Your task to perform on an android device: Open the calendar app, open the side menu, and click the "Day" option Image 0: 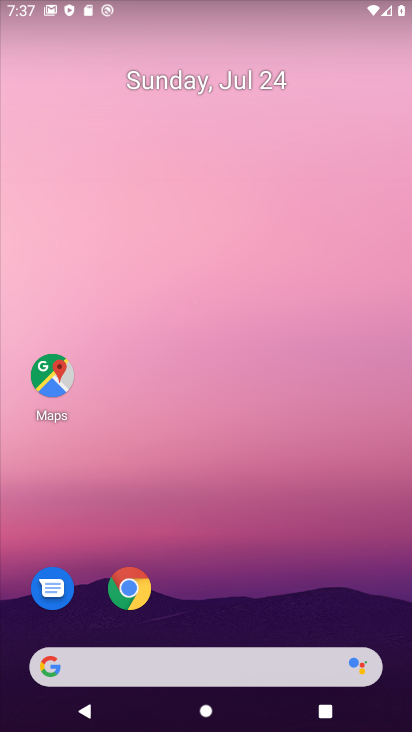
Step 0: drag from (272, 610) to (399, 15)
Your task to perform on an android device: Open the calendar app, open the side menu, and click the "Day" option Image 1: 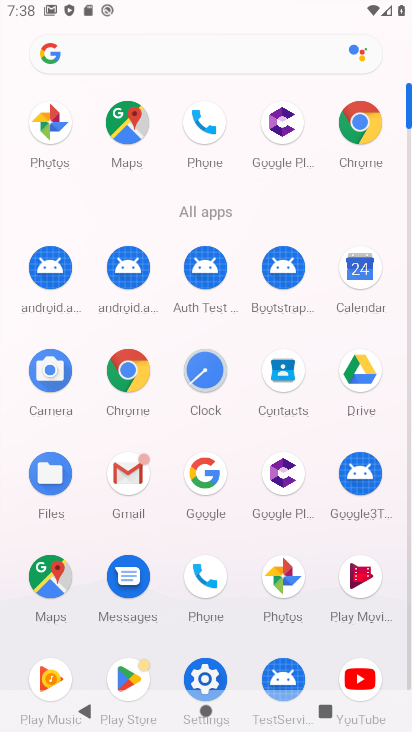
Step 1: click (359, 272)
Your task to perform on an android device: Open the calendar app, open the side menu, and click the "Day" option Image 2: 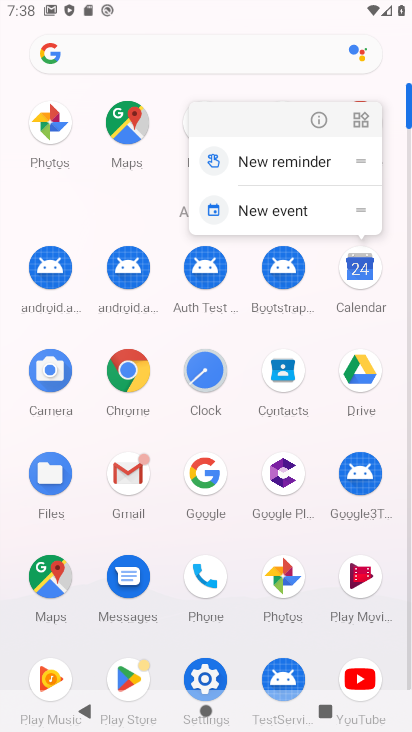
Step 2: click (359, 272)
Your task to perform on an android device: Open the calendar app, open the side menu, and click the "Day" option Image 3: 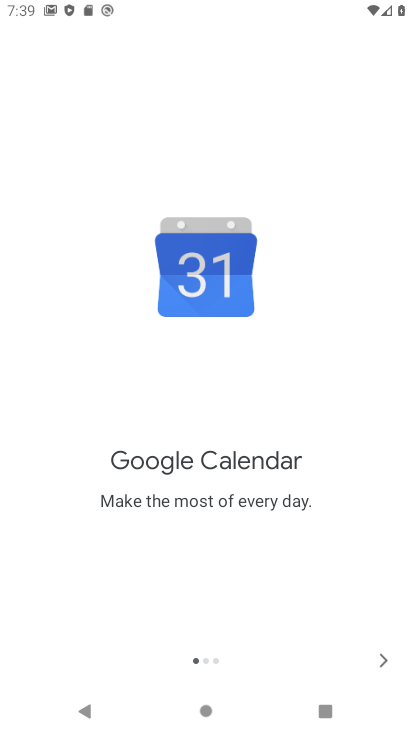
Step 3: click (385, 669)
Your task to perform on an android device: Open the calendar app, open the side menu, and click the "Day" option Image 4: 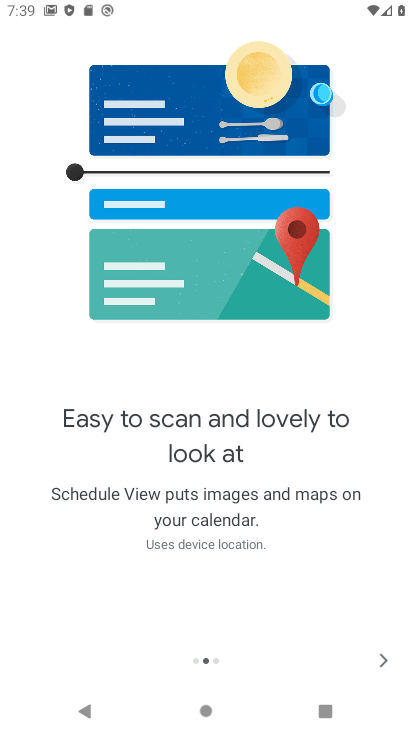
Step 4: click (387, 667)
Your task to perform on an android device: Open the calendar app, open the side menu, and click the "Day" option Image 5: 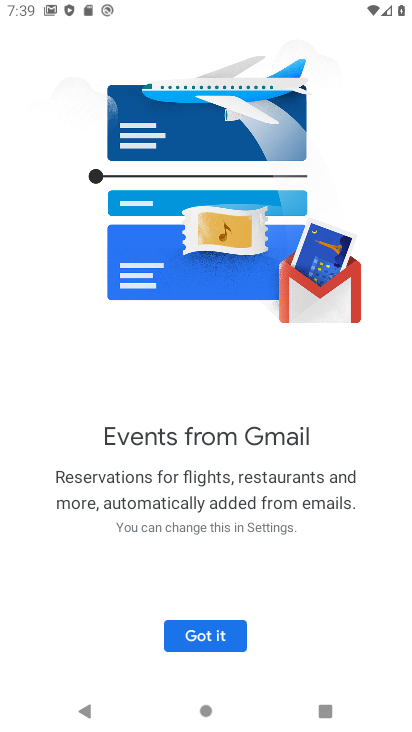
Step 5: click (209, 639)
Your task to perform on an android device: Open the calendar app, open the side menu, and click the "Day" option Image 6: 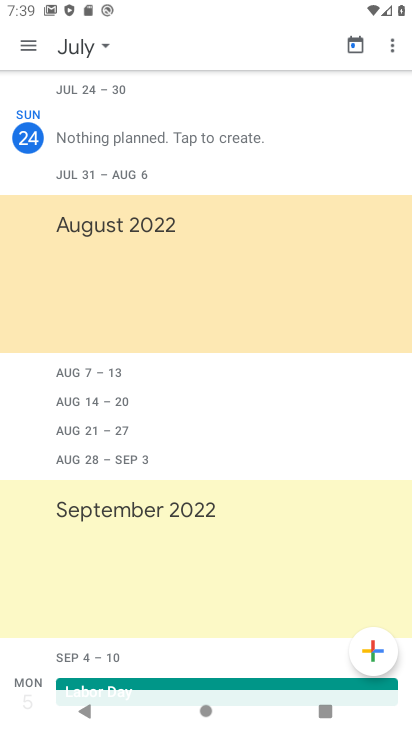
Step 6: click (52, 37)
Your task to perform on an android device: Open the calendar app, open the side menu, and click the "Day" option Image 7: 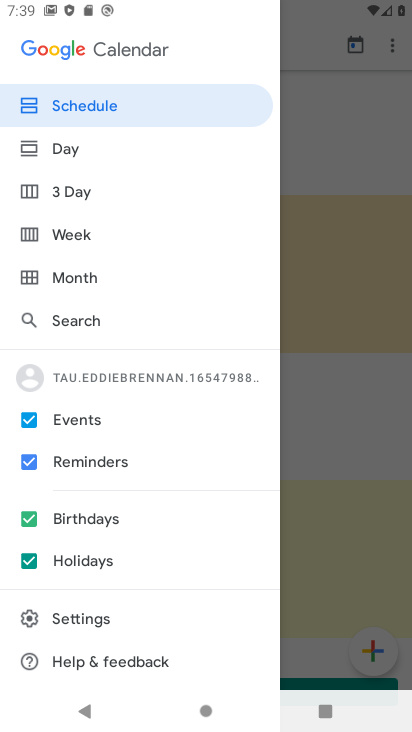
Step 7: click (64, 154)
Your task to perform on an android device: Open the calendar app, open the side menu, and click the "Day" option Image 8: 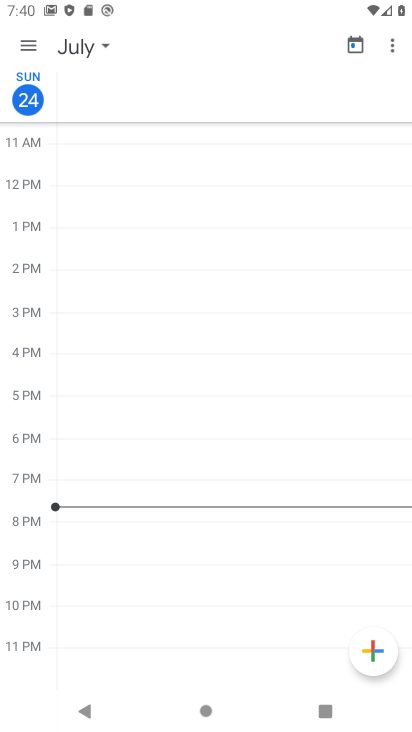
Step 8: task complete